Your task to perform on an android device: Open settings Image 0: 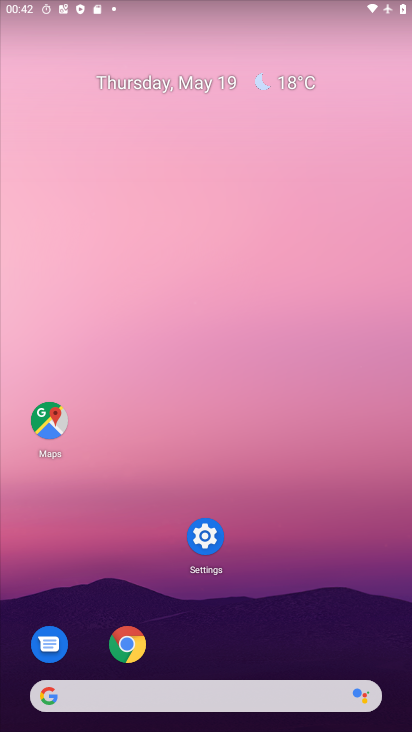
Step 0: drag from (316, 497) to (310, 140)
Your task to perform on an android device: Open settings Image 1: 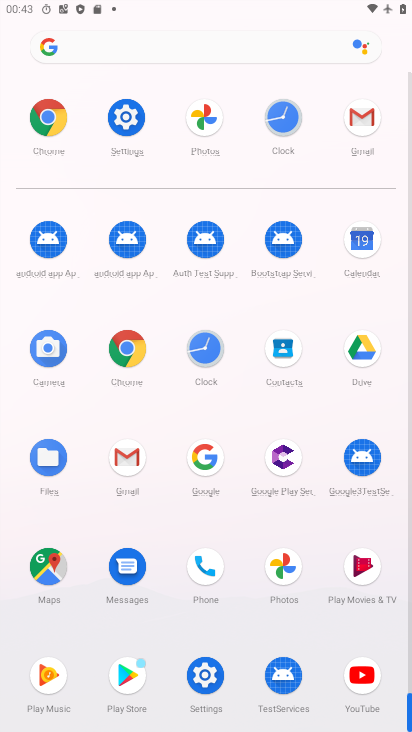
Step 1: click (120, 106)
Your task to perform on an android device: Open settings Image 2: 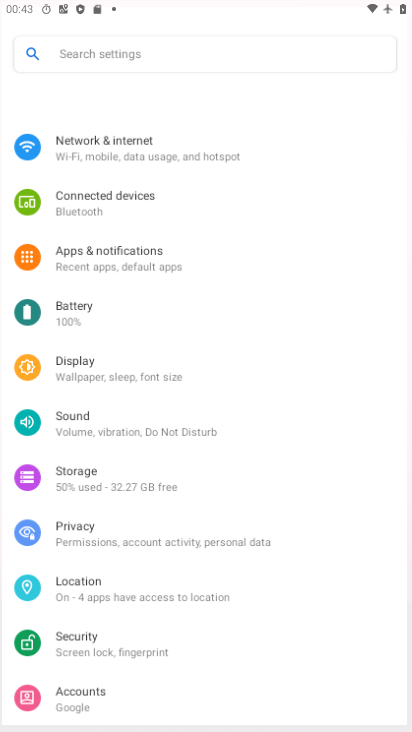
Step 2: click (129, 120)
Your task to perform on an android device: Open settings Image 3: 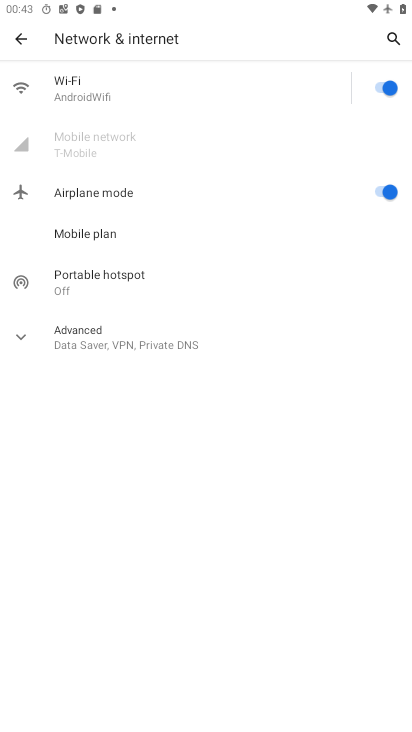
Step 3: click (20, 39)
Your task to perform on an android device: Open settings Image 4: 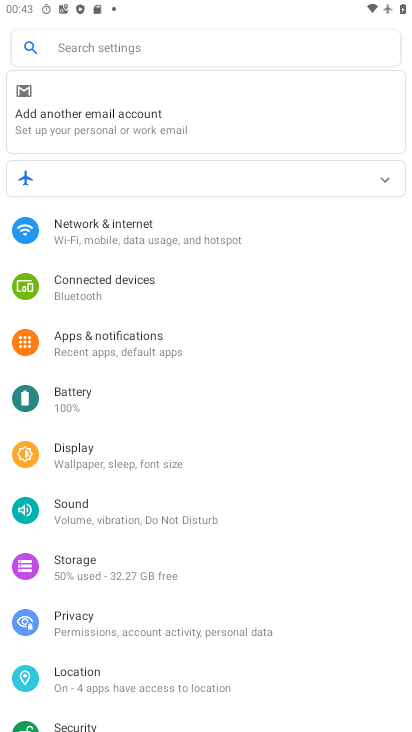
Step 4: task complete